Your task to perform on an android device: Open Google Chrome and open the bookmarks view Image 0: 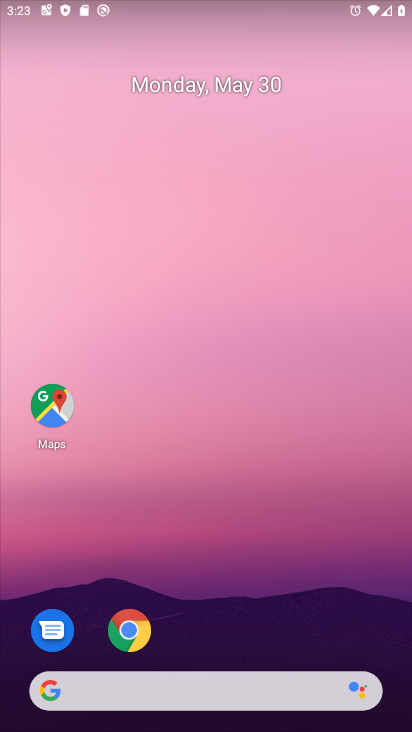
Step 0: press home button
Your task to perform on an android device: Open Google Chrome and open the bookmarks view Image 1: 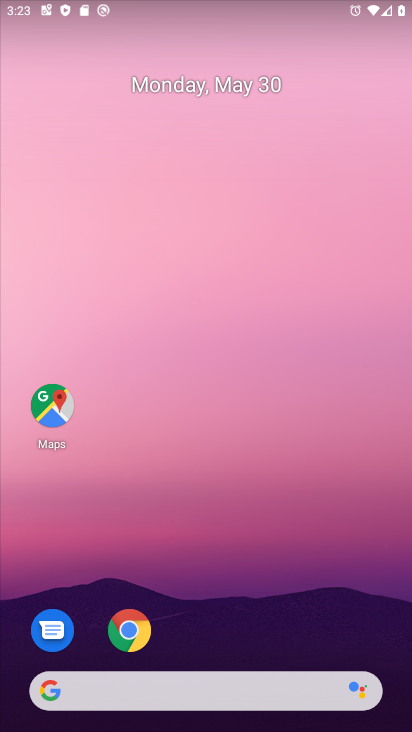
Step 1: click (151, 615)
Your task to perform on an android device: Open Google Chrome and open the bookmarks view Image 2: 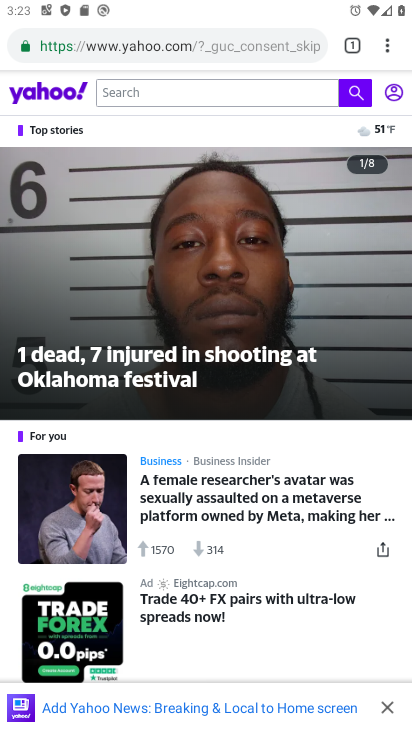
Step 2: click (374, 42)
Your task to perform on an android device: Open Google Chrome and open the bookmarks view Image 3: 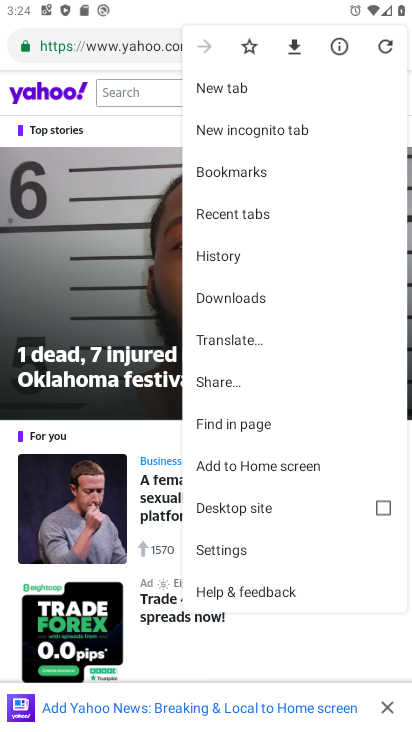
Step 3: click (213, 179)
Your task to perform on an android device: Open Google Chrome and open the bookmarks view Image 4: 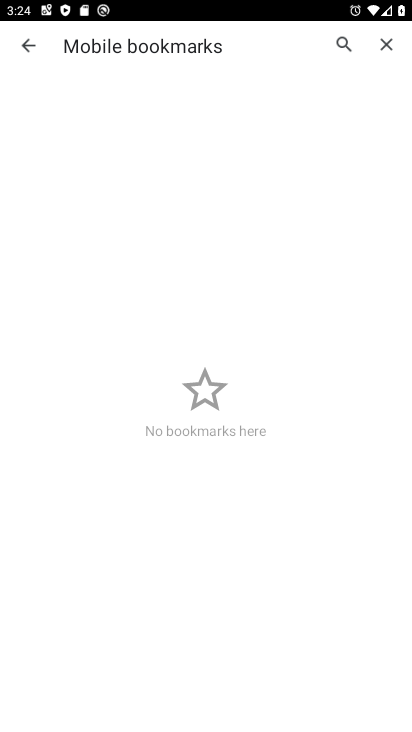
Step 4: task complete